Your task to perform on an android device: find photos in the google photos app Image 0: 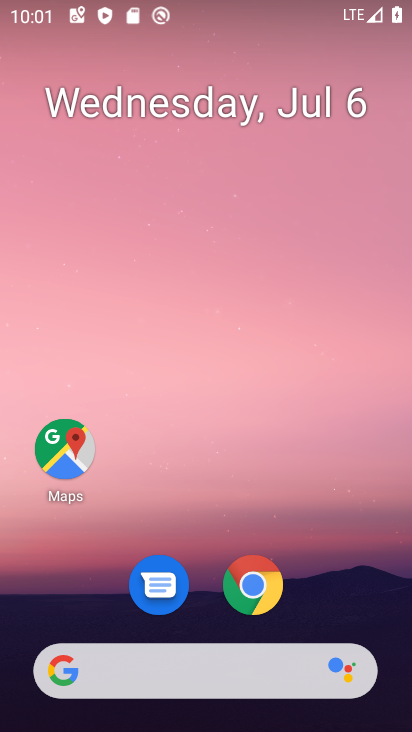
Step 0: drag from (201, 500) to (230, 0)
Your task to perform on an android device: find photos in the google photos app Image 1: 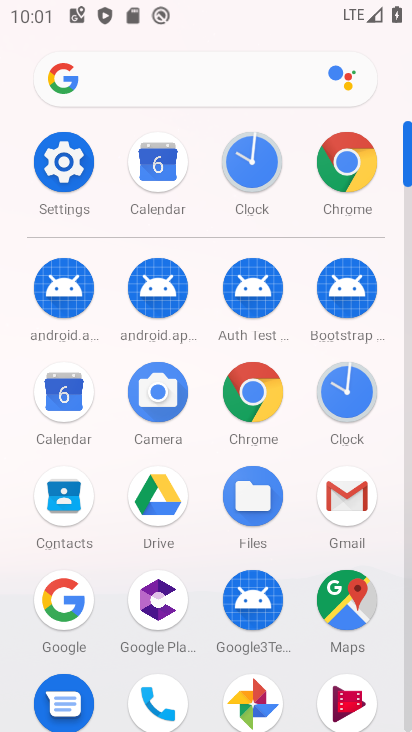
Step 1: drag from (206, 603) to (203, 346)
Your task to perform on an android device: find photos in the google photos app Image 2: 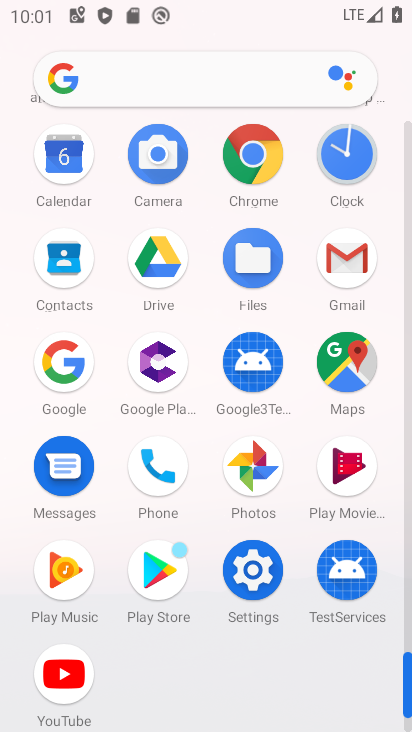
Step 2: click (252, 451)
Your task to perform on an android device: find photos in the google photos app Image 3: 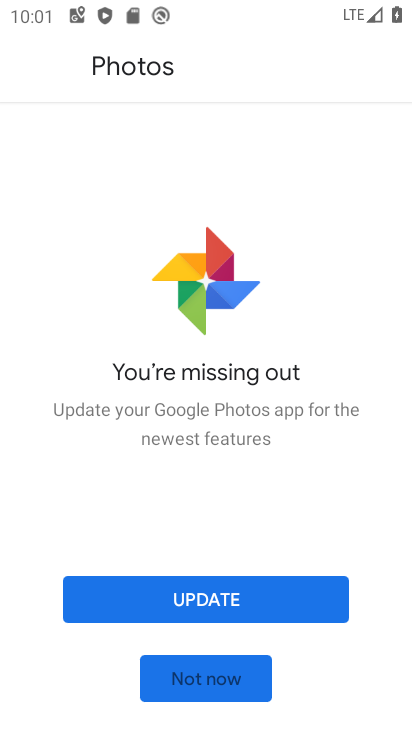
Step 3: click (225, 677)
Your task to perform on an android device: find photos in the google photos app Image 4: 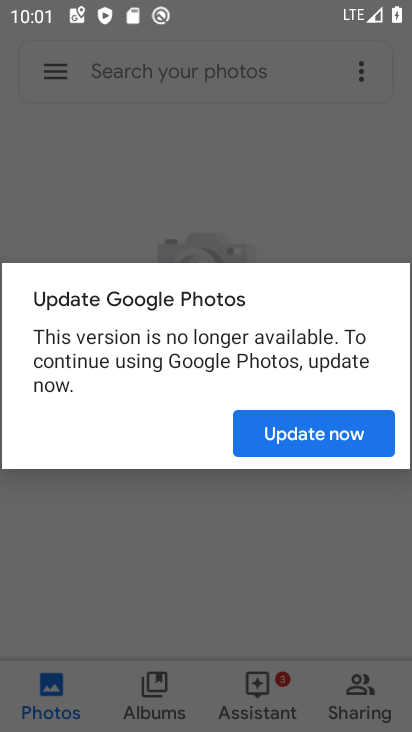
Step 4: click (347, 434)
Your task to perform on an android device: find photos in the google photos app Image 5: 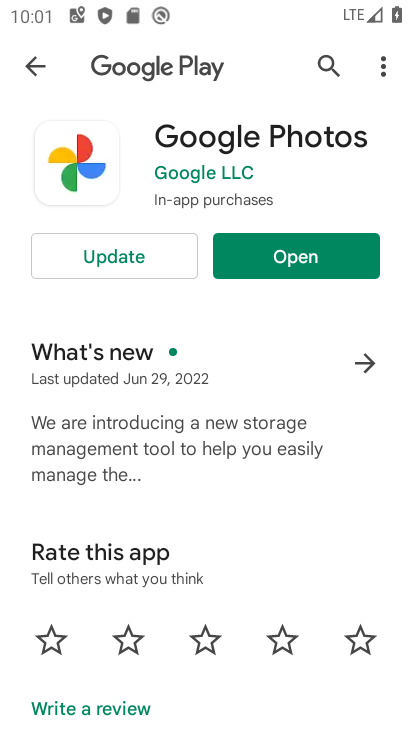
Step 5: click (258, 262)
Your task to perform on an android device: find photos in the google photos app Image 6: 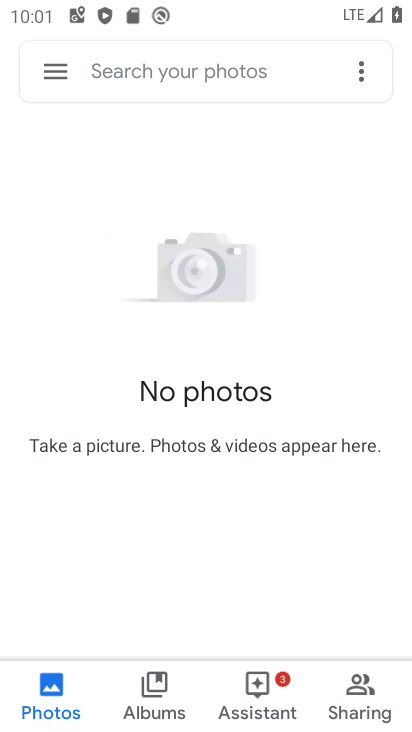
Step 6: click (56, 679)
Your task to perform on an android device: find photos in the google photos app Image 7: 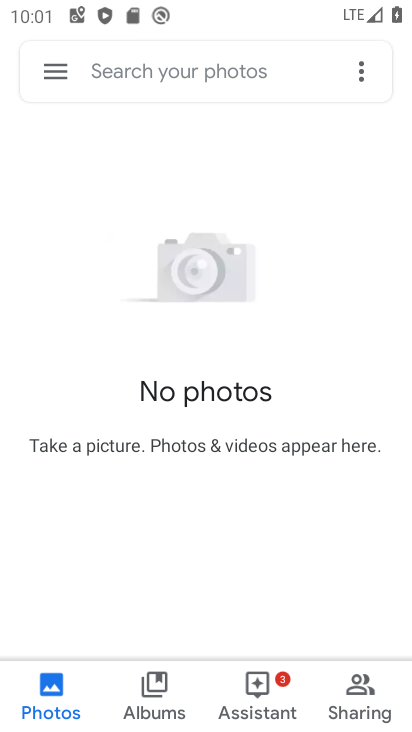
Step 7: task complete